Your task to perform on an android device: Turn off the flashlight Image 0: 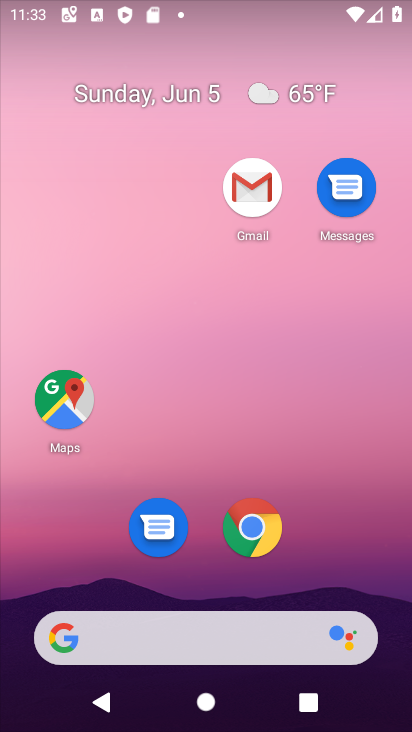
Step 0: drag from (356, 506) to (355, 1)
Your task to perform on an android device: Turn off the flashlight Image 1: 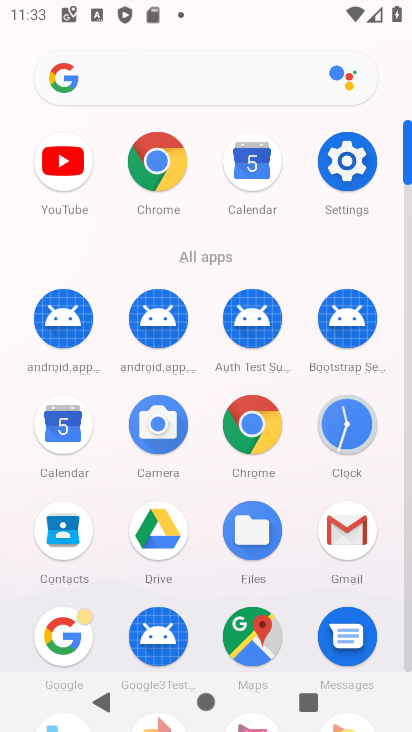
Step 1: click (344, 165)
Your task to perform on an android device: Turn off the flashlight Image 2: 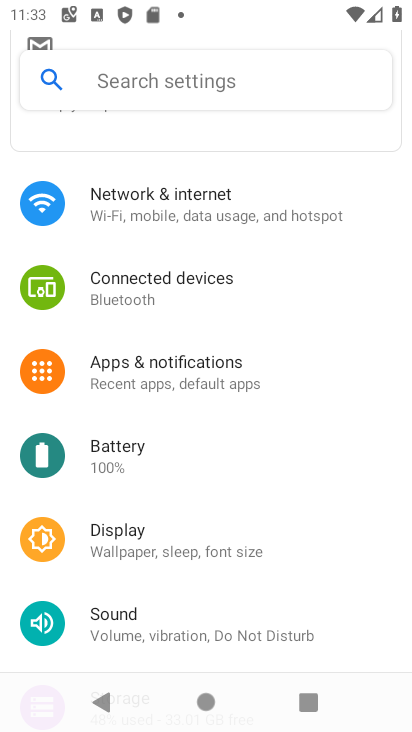
Step 2: click (171, 553)
Your task to perform on an android device: Turn off the flashlight Image 3: 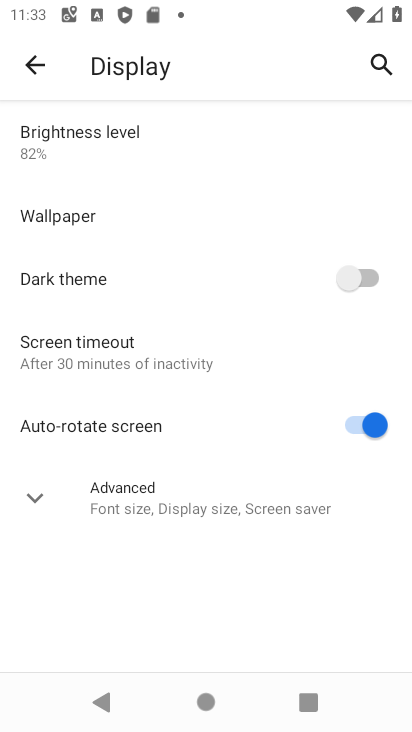
Step 3: click (172, 494)
Your task to perform on an android device: Turn off the flashlight Image 4: 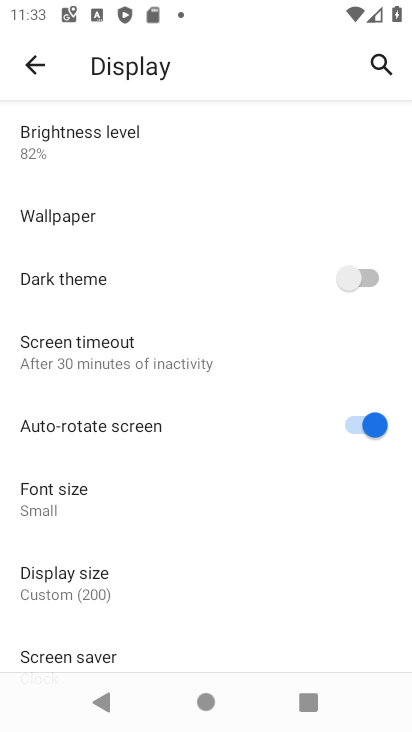
Step 4: task complete